Your task to perform on an android device: delete a single message in the gmail app Image 0: 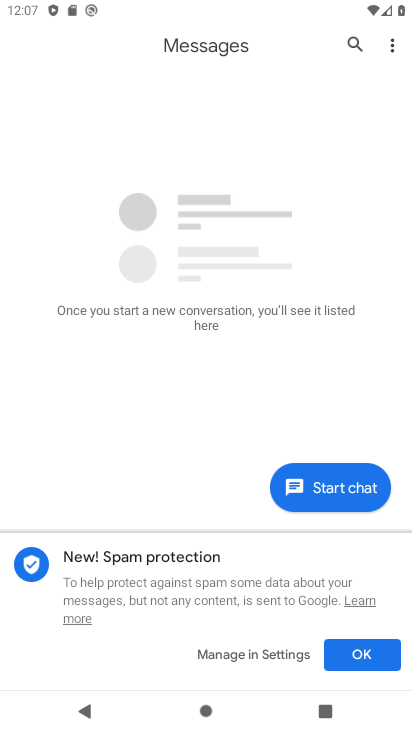
Step 0: press home button
Your task to perform on an android device: delete a single message in the gmail app Image 1: 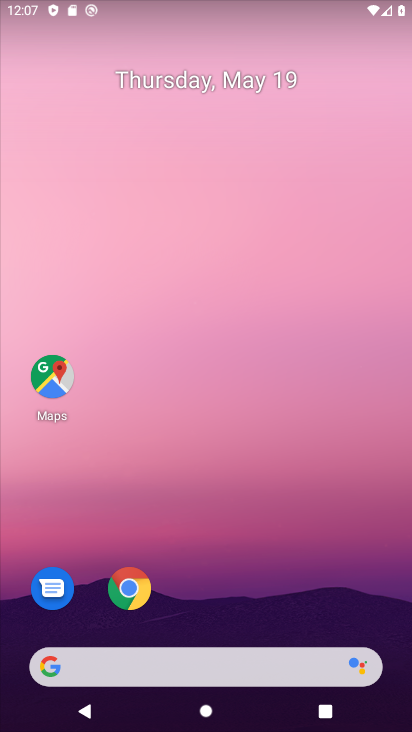
Step 1: drag from (283, 608) to (216, 221)
Your task to perform on an android device: delete a single message in the gmail app Image 2: 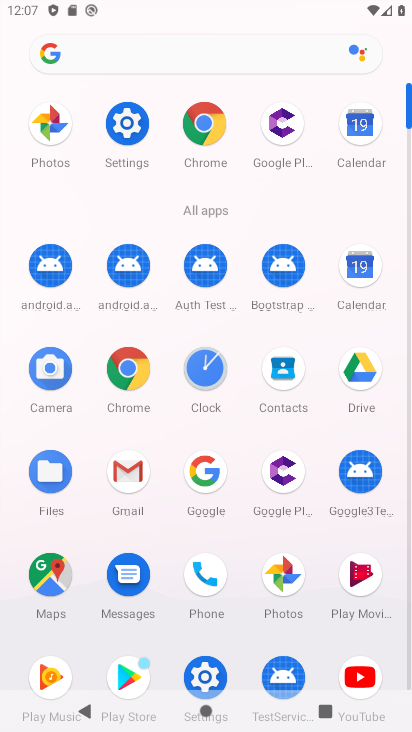
Step 2: click (129, 478)
Your task to perform on an android device: delete a single message in the gmail app Image 3: 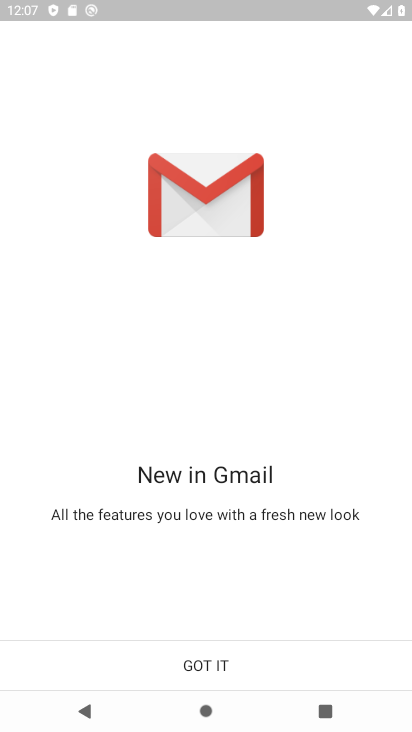
Step 3: click (218, 664)
Your task to perform on an android device: delete a single message in the gmail app Image 4: 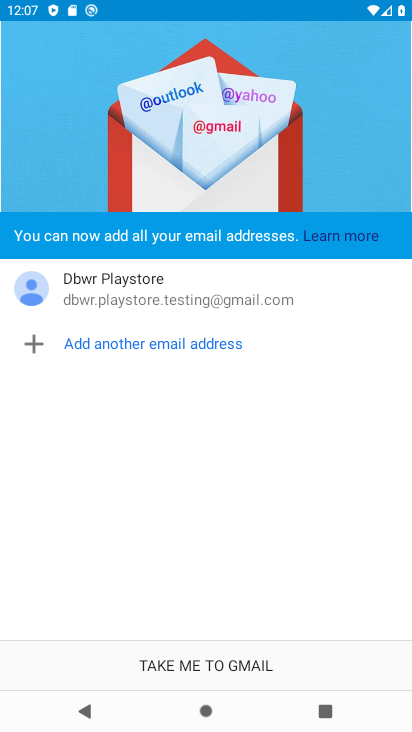
Step 4: click (218, 664)
Your task to perform on an android device: delete a single message in the gmail app Image 5: 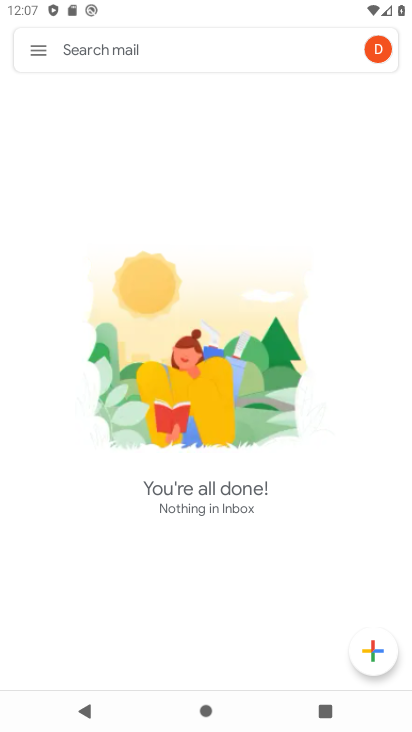
Step 5: click (38, 45)
Your task to perform on an android device: delete a single message in the gmail app Image 6: 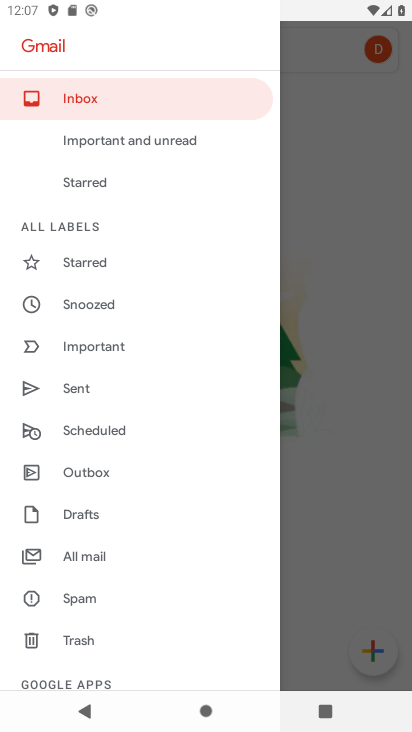
Step 6: click (121, 559)
Your task to perform on an android device: delete a single message in the gmail app Image 7: 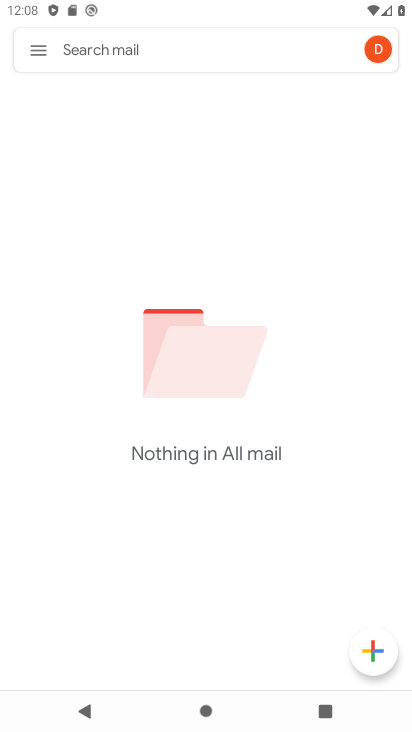
Step 7: task complete